Your task to perform on an android device: Go to Maps Image 0: 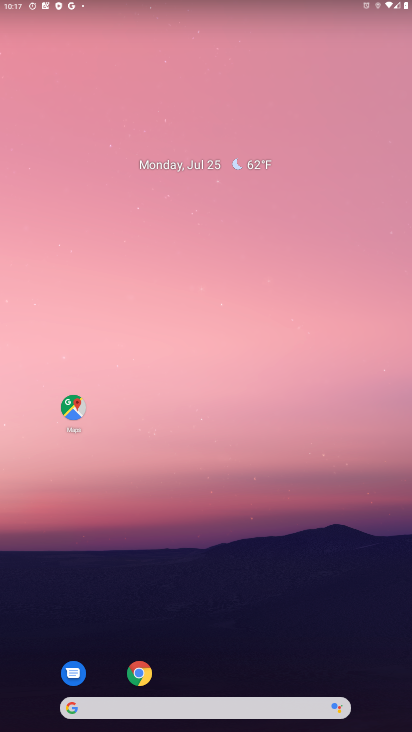
Step 0: drag from (231, 680) to (216, 177)
Your task to perform on an android device: Go to Maps Image 1: 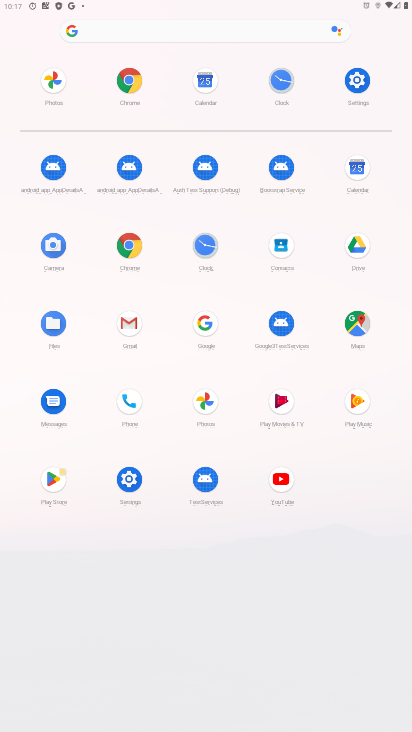
Step 1: click (362, 312)
Your task to perform on an android device: Go to Maps Image 2: 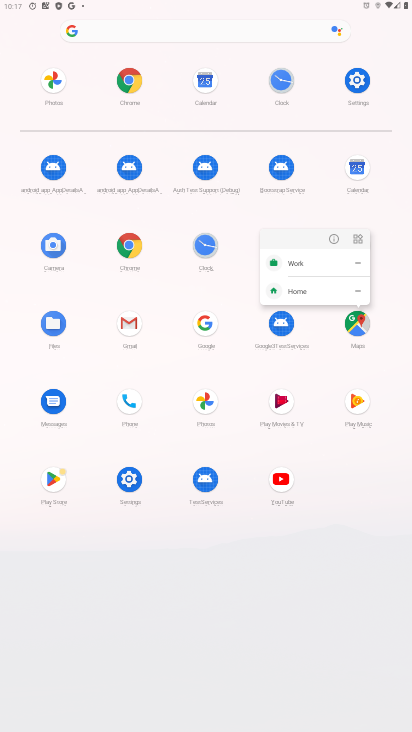
Step 2: click (321, 230)
Your task to perform on an android device: Go to Maps Image 3: 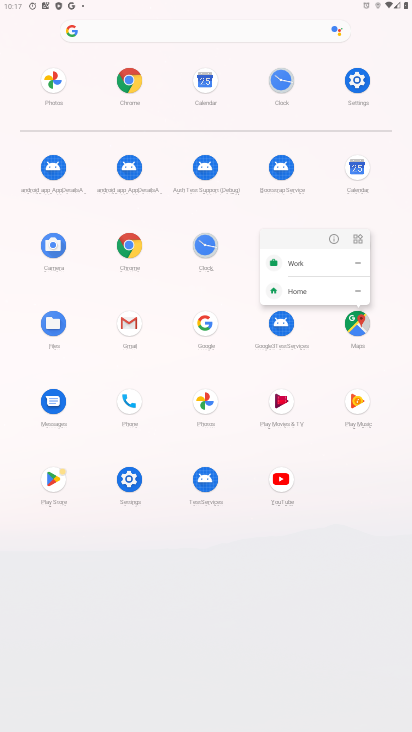
Step 3: click (333, 231)
Your task to perform on an android device: Go to Maps Image 4: 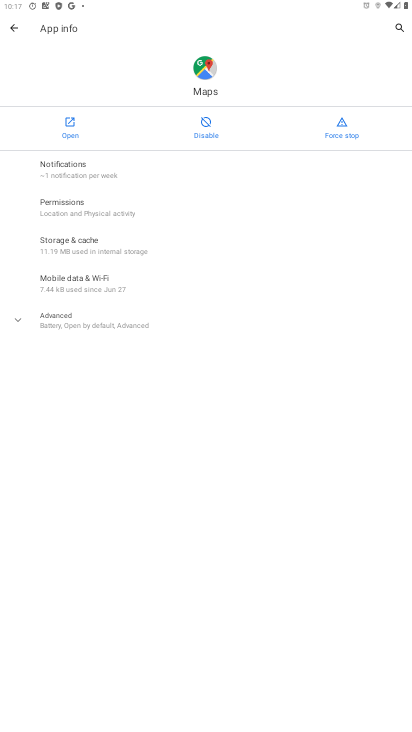
Step 4: click (68, 136)
Your task to perform on an android device: Go to Maps Image 5: 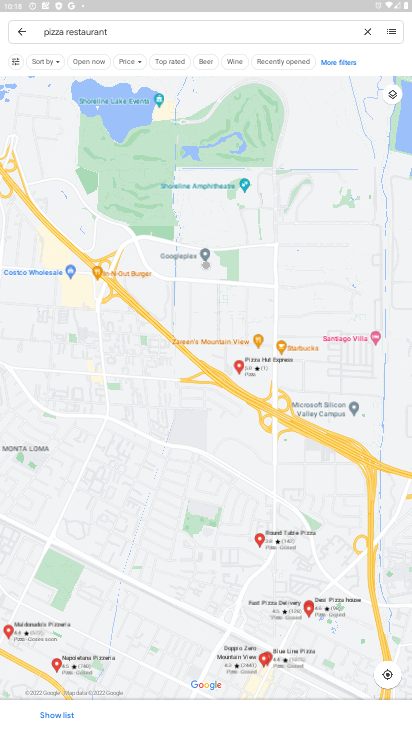
Step 5: task complete